Your task to perform on an android device: Open my contact list Image 0: 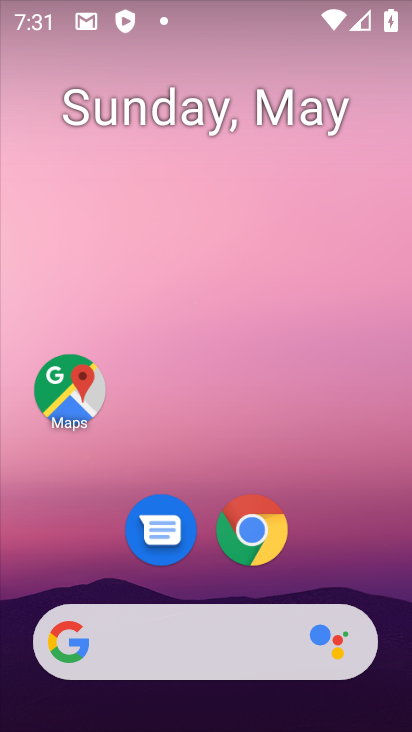
Step 0: drag from (212, 602) to (376, 559)
Your task to perform on an android device: Open my contact list Image 1: 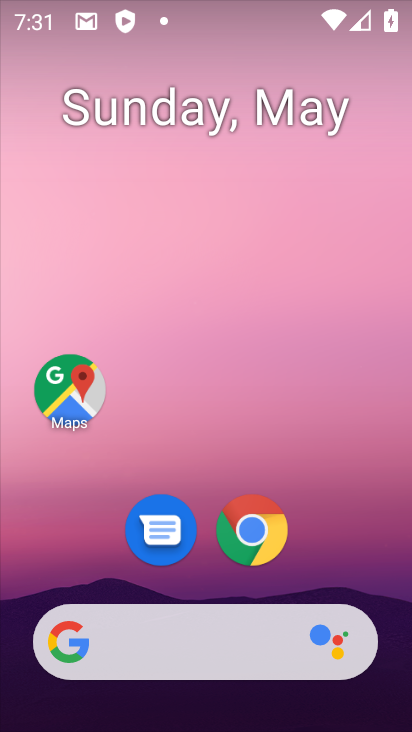
Step 1: drag from (177, 593) to (140, 2)
Your task to perform on an android device: Open my contact list Image 2: 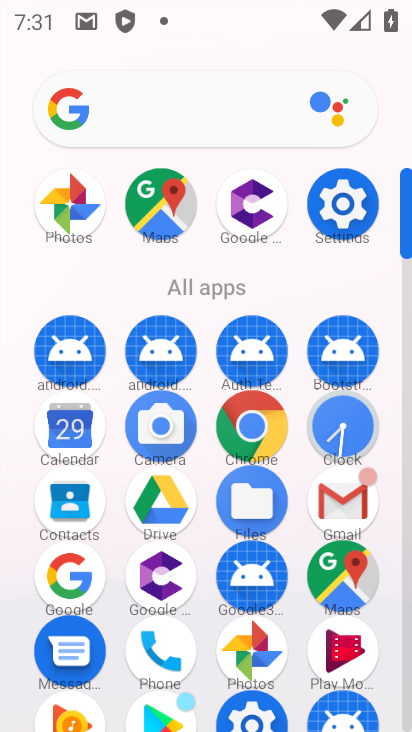
Step 2: click (176, 640)
Your task to perform on an android device: Open my contact list Image 3: 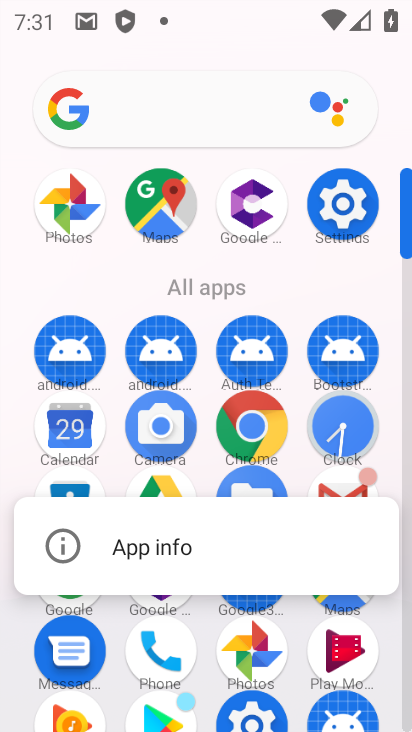
Step 3: click (158, 652)
Your task to perform on an android device: Open my contact list Image 4: 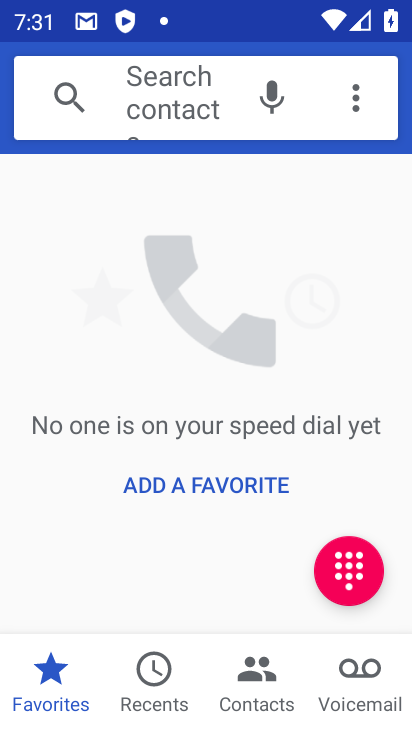
Step 4: click (257, 667)
Your task to perform on an android device: Open my contact list Image 5: 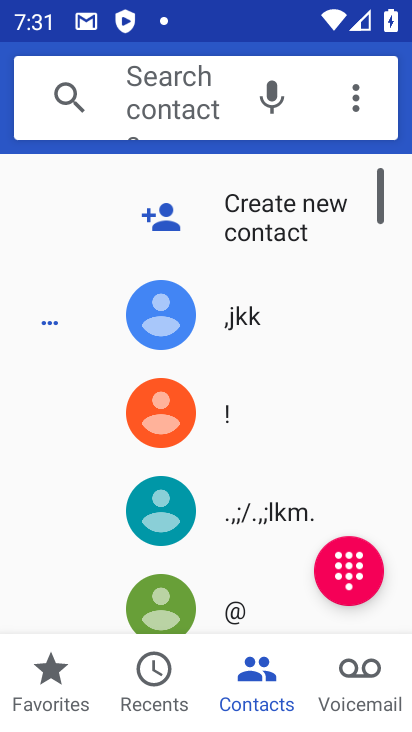
Step 5: task complete